Your task to perform on an android device: Show me popular videos on Youtube Image 0: 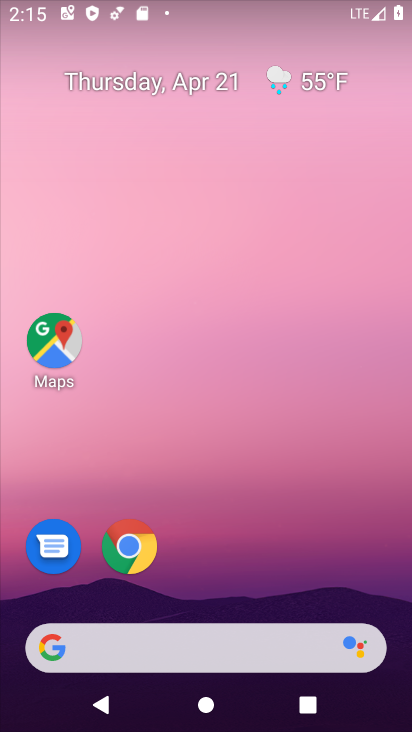
Step 0: drag from (206, 608) to (203, 334)
Your task to perform on an android device: Show me popular videos on Youtube Image 1: 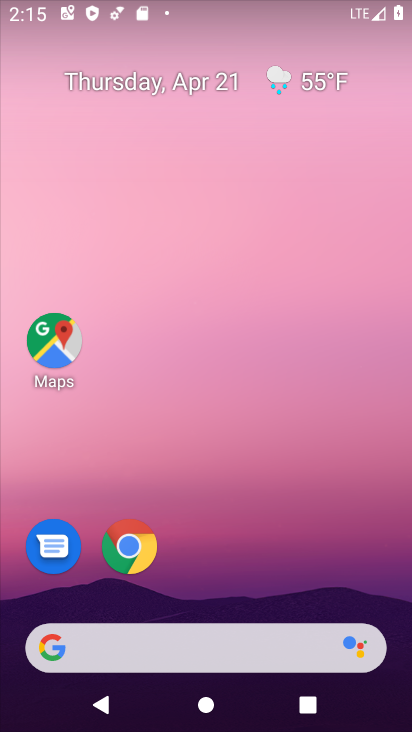
Step 1: drag from (333, 611) to (350, 266)
Your task to perform on an android device: Show me popular videos on Youtube Image 2: 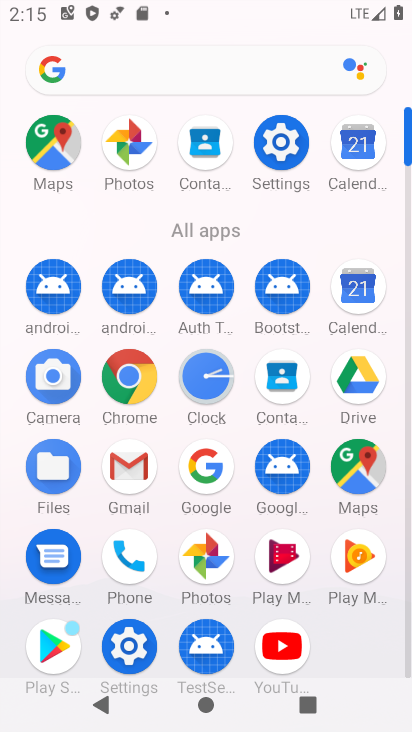
Step 2: click (280, 631)
Your task to perform on an android device: Show me popular videos on Youtube Image 3: 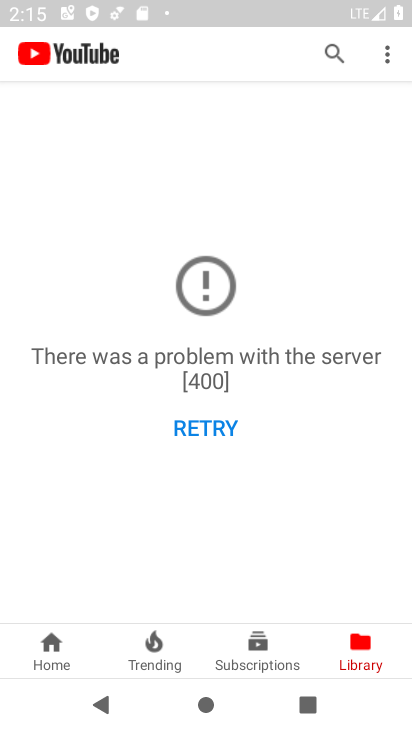
Step 3: task complete